Your task to perform on an android device: Go to sound settings Image 0: 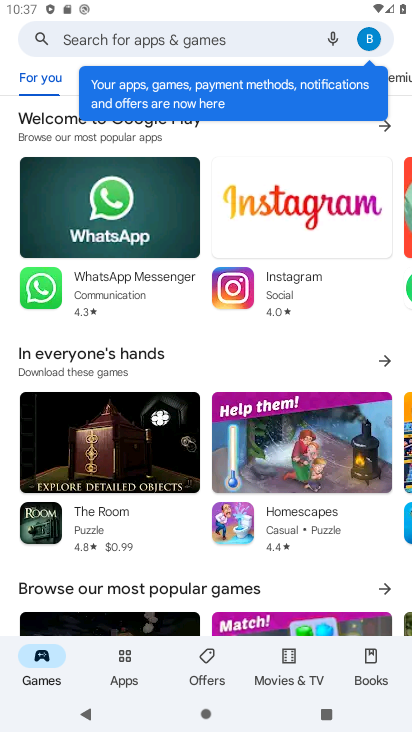
Step 0: press home button
Your task to perform on an android device: Go to sound settings Image 1: 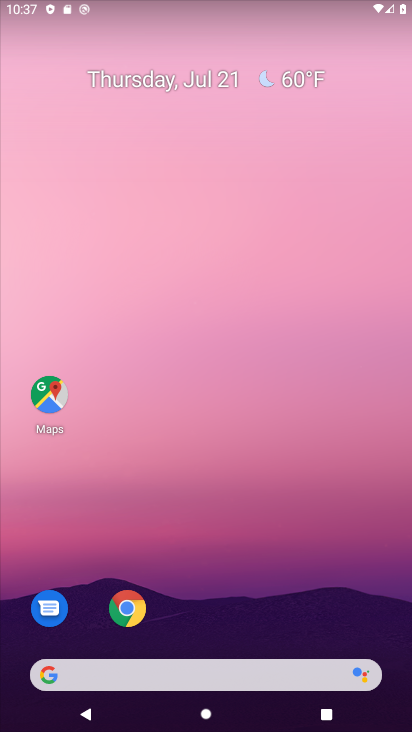
Step 1: drag from (188, 595) to (176, 8)
Your task to perform on an android device: Go to sound settings Image 2: 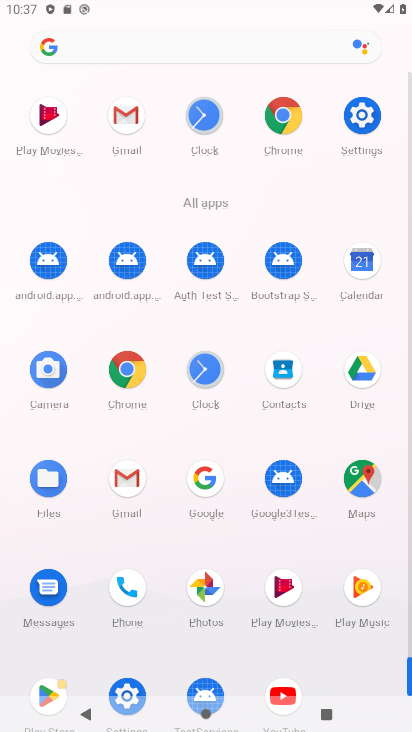
Step 2: drag from (119, 657) to (119, 498)
Your task to perform on an android device: Go to sound settings Image 3: 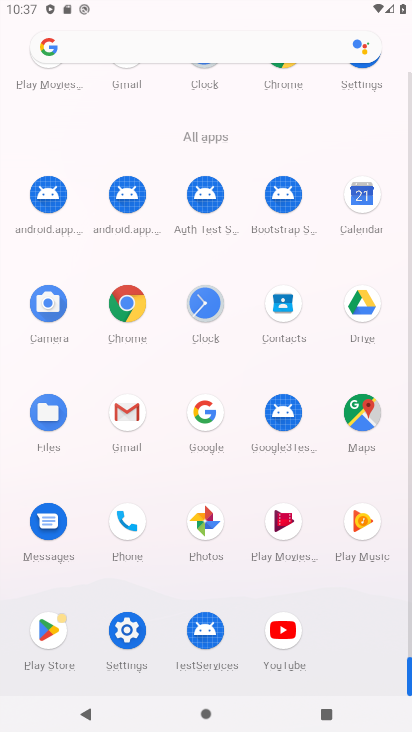
Step 3: click (124, 647)
Your task to perform on an android device: Go to sound settings Image 4: 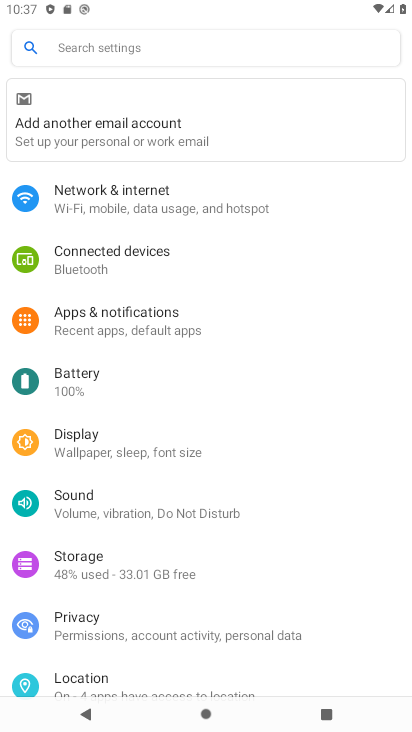
Step 4: click (152, 513)
Your task to perform on an android device: Go to sound settings Image 5: 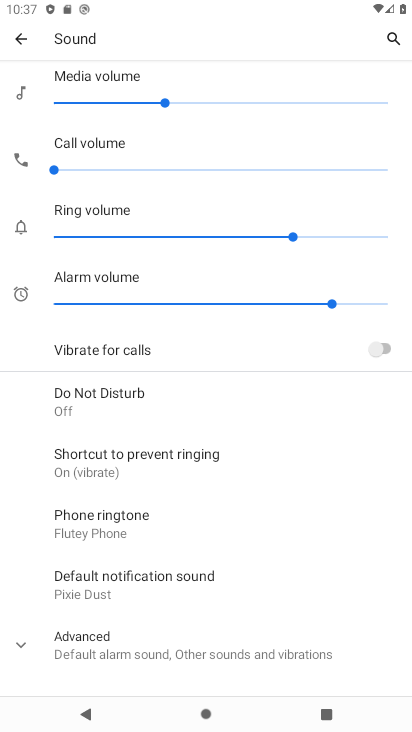
Step 5: task complete